Your task to perform on an android device: Search for seafood restaurants on Google Maps Image 0: 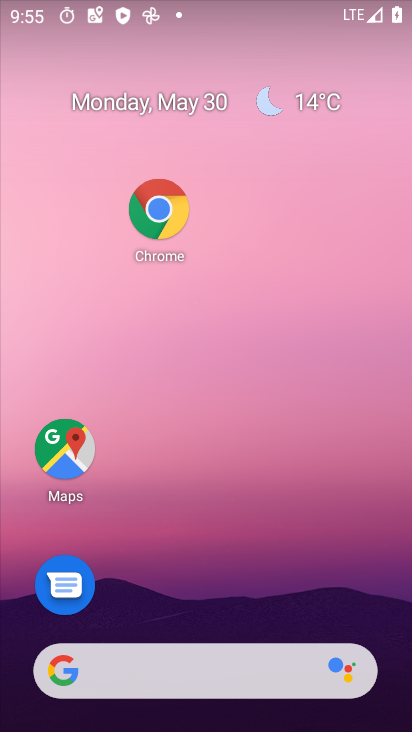
Step 0: drag from (299, 35) to (11, 0)
Your task to perform on an android device: Search for seafood restaurants on Google Maps Image 1: 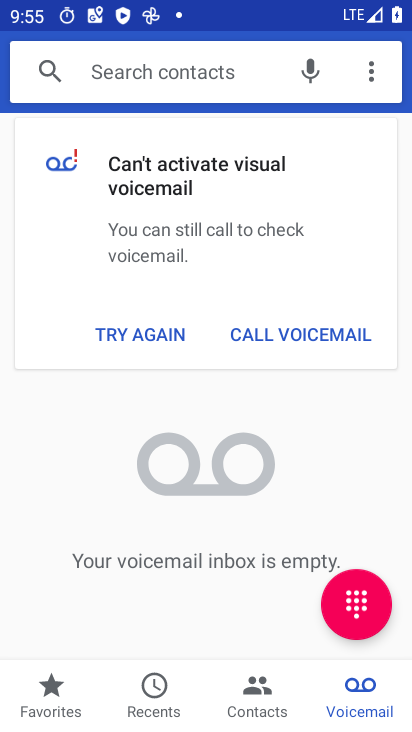
Step 1: press home button
Your task to perform on an android device: Search for seafood restaurants on Google Maps Image 2: 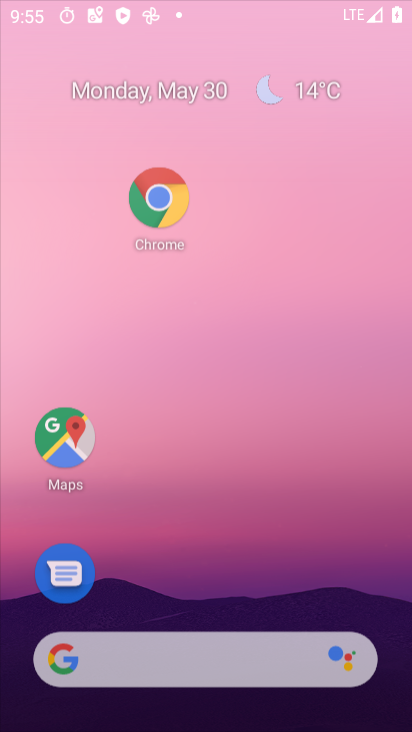
Step 2: drag from (210, 614) to (260, 15)
Your task to perform on an android device: Search for seafood restaurants on Google Maps Image 3: 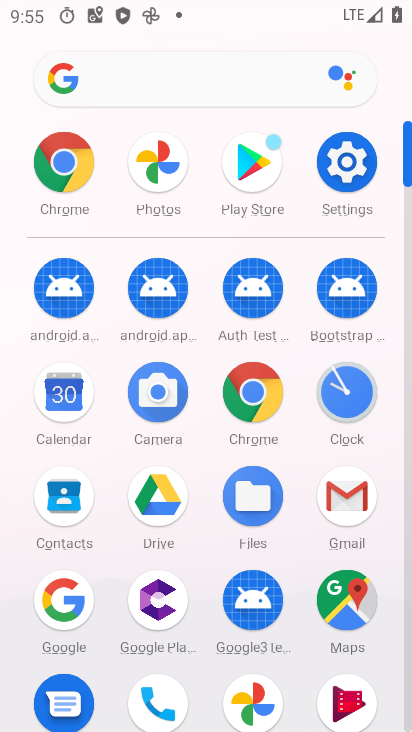
Step 3: click (159, 70)
Your task to perform on an android device: Search for seafood restaurants on Google Maps Image 4: 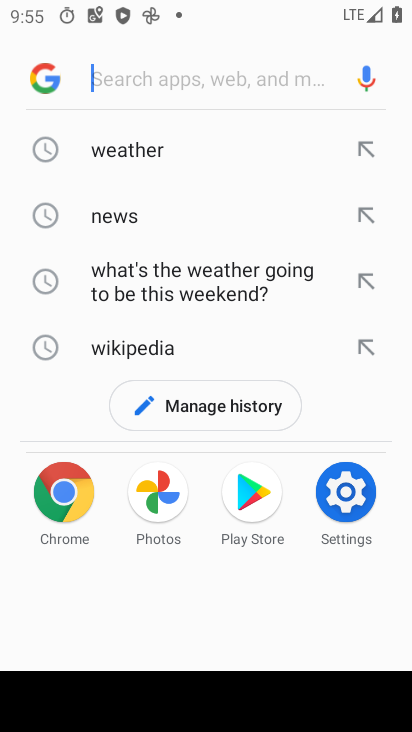
Step 4: press home button
Your task to perform on an android device: Search for seafood restaurants on Google Maps Image 5: 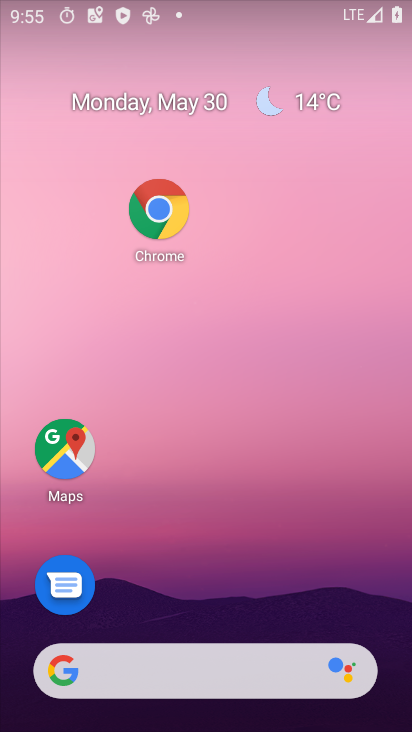
Step 5: drag from (179, 545) to (332, 7)
Your task to perform on an android device: Search for seafood restaurants on Google Maps Image 6: 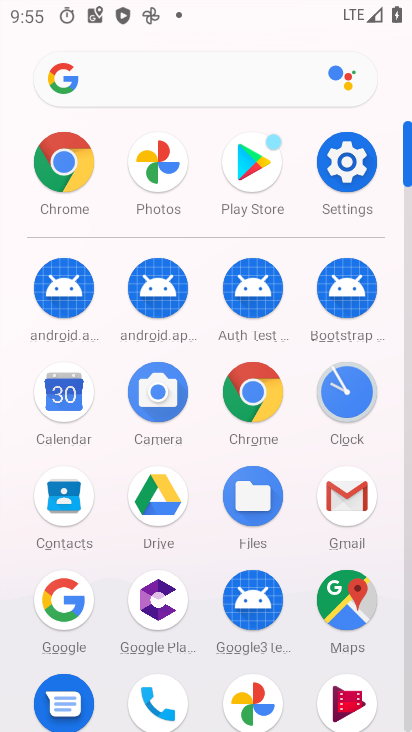
Step 6: click (330, 603)
Your task to perform on an android device: Search for seafood restaurants on Google Maps Image 7: 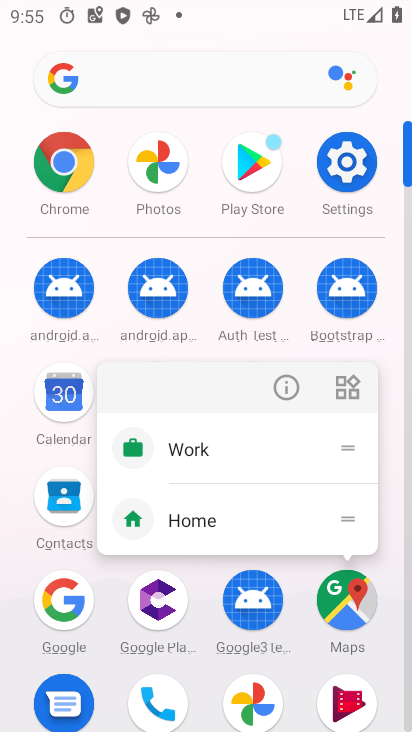
Step 7: click (269, 394)
Your task to perform on an android device: Search for seafood restaurants on Google Maps Image 8: 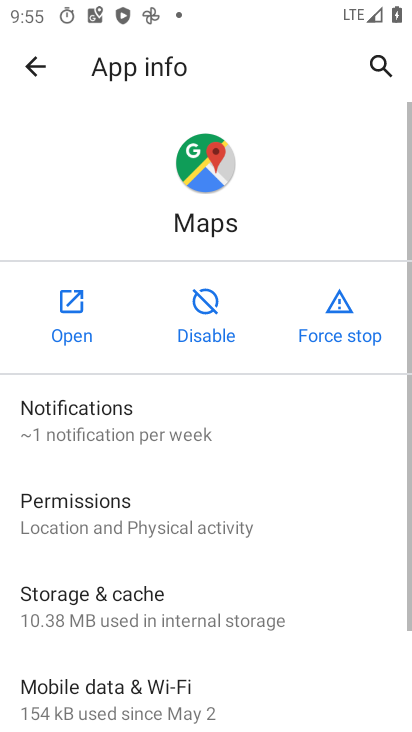
Step 8: click (68, 331)
Your task to perform on an android device: Search for seafood restaurants on Google Maps Image 9: 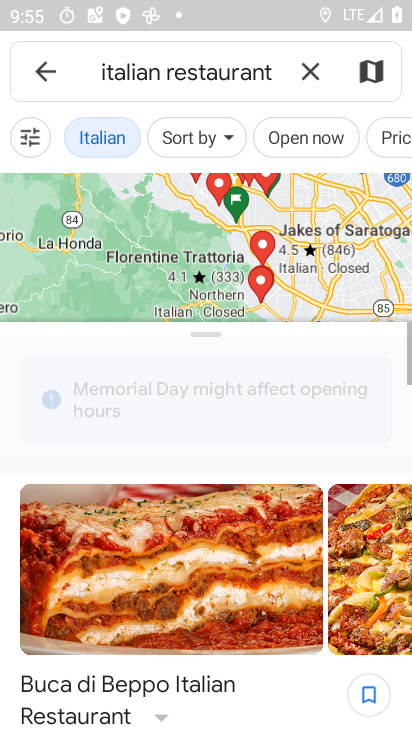
Step 9: click (303, 74)
Your task to perform on an android device: Search for seafood restaurants on Google Maps Image 10: 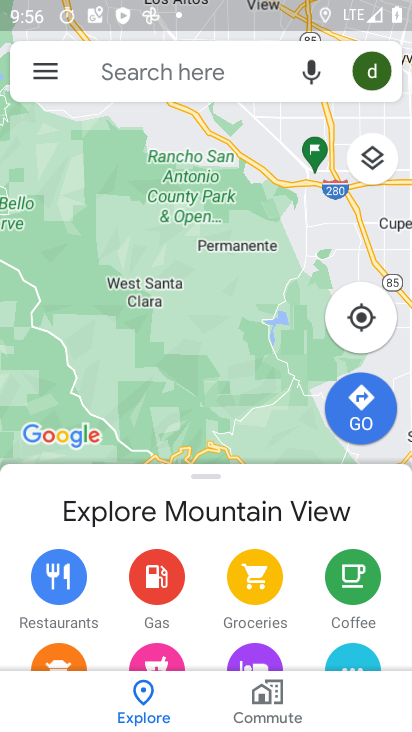
Step 10: type "seafood restaurants"
Your task to perform on an android device: Search for seafood restaurants on Google Maps Image 11: 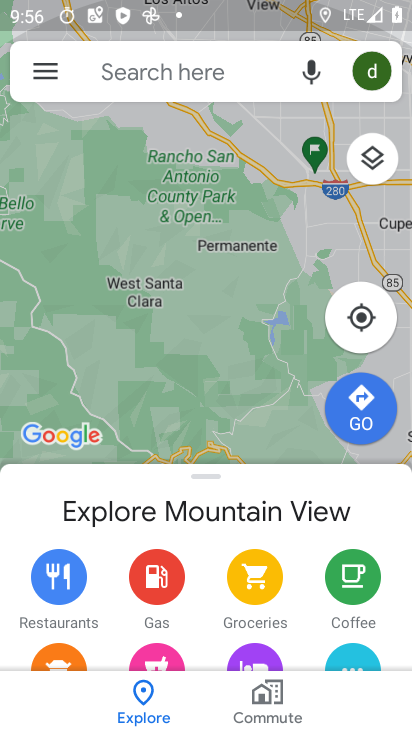
Step 11: type ""
Your task to perform on an android device: Search for seafood restaurants on Google Maps Image 12: 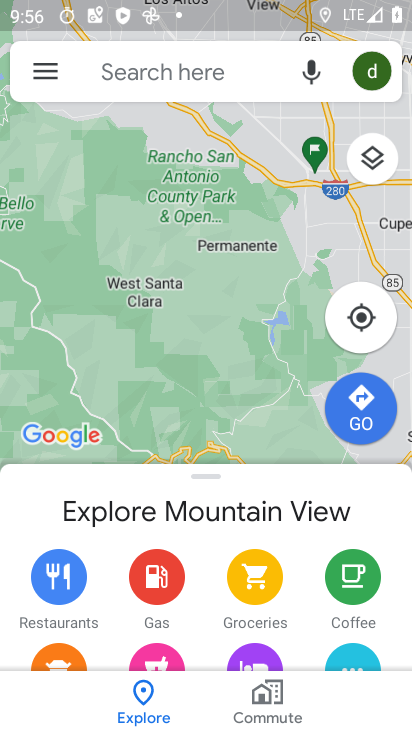
Step 12: click (126, 73)
Your task to perform on an android device: Search for seafood restaurants on Google Maps Image 13: 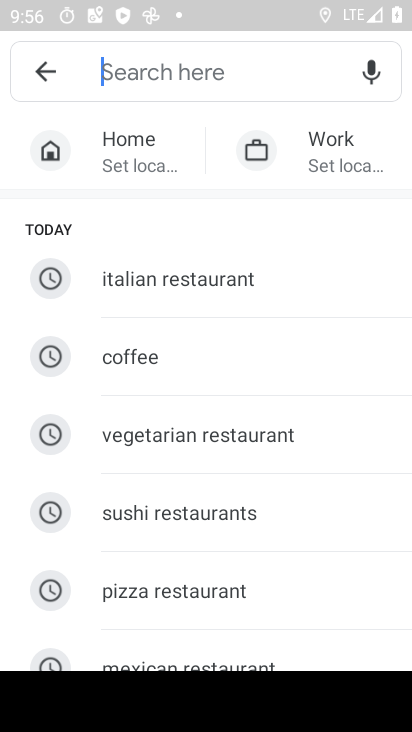
Step 13: drag from (210, 580) to (284, 235)
Your task to perform on an android device: Search for seafood restaurants on Google Maps Image 14: 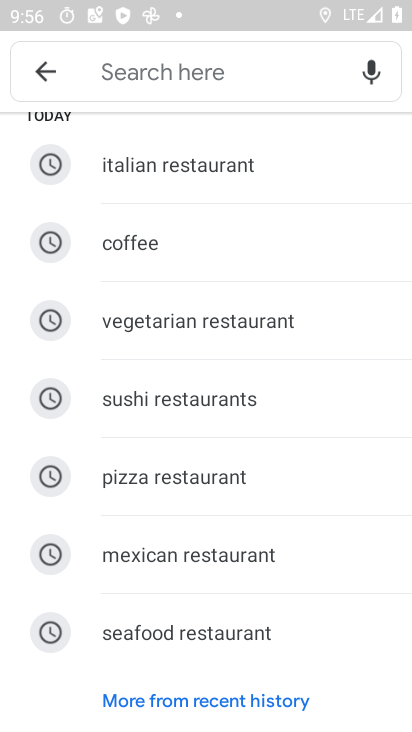
Step 14: click (164, 622)
Your task to perform on an android device: Search for seafood restaurants on Google Maps Image 15: 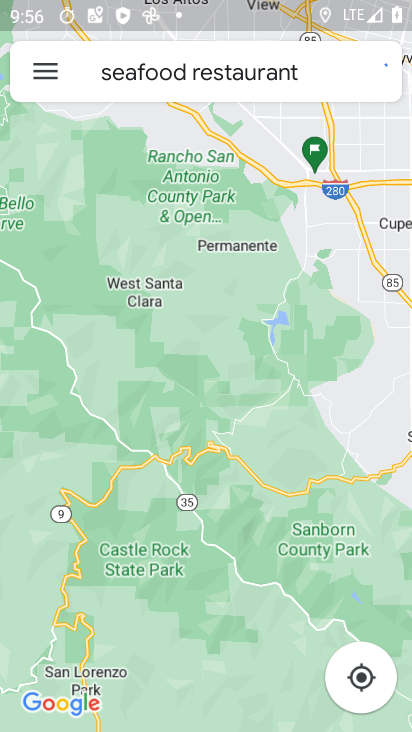
Step 15: task complete